Your task to perform on an android device: Open settings on Google Maps Image 0: 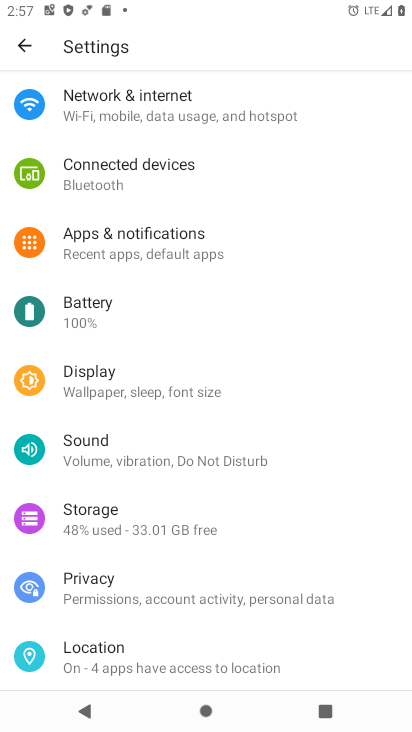
Step 0: press back button
Your task to perform on an android device: Open settings on Google Maps Image 1: 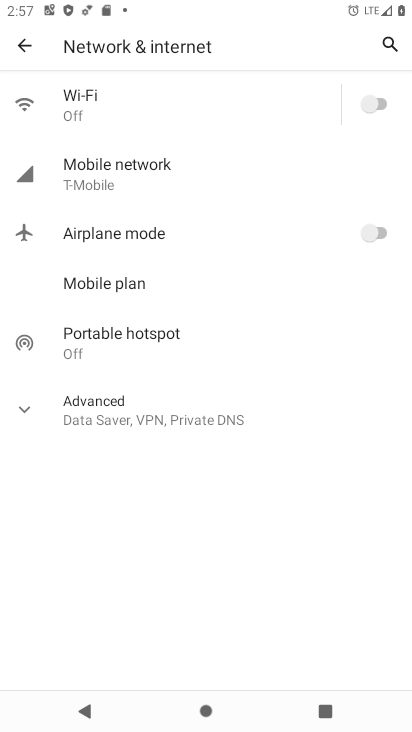
Step 1: press back button
Your task to perform on an android device: Open settings on Google Maps Image 2: 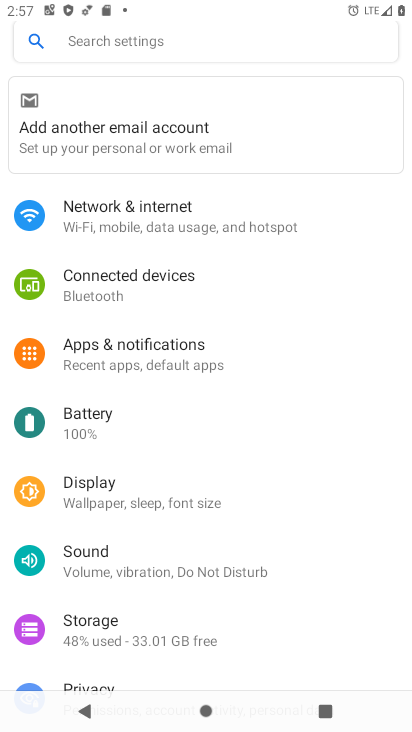
Step 2: press back button
Your task to perform on an android device: Open settings on Google Maps Image 3: 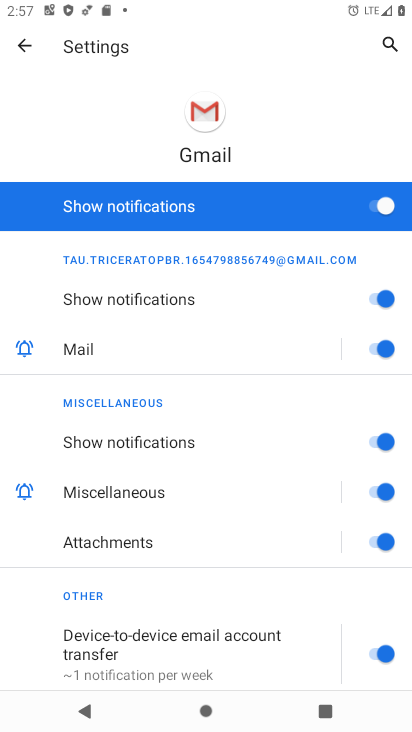
Step 3: press back button
Your task to perform on an android device: Open settings on Google Maps Image 4: 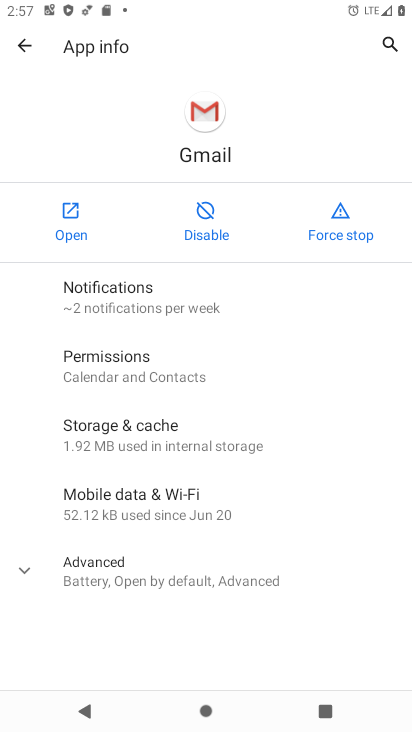
Step 4: press back button
Your task to perform on an android device: Open settings on Google Maps Image 5: 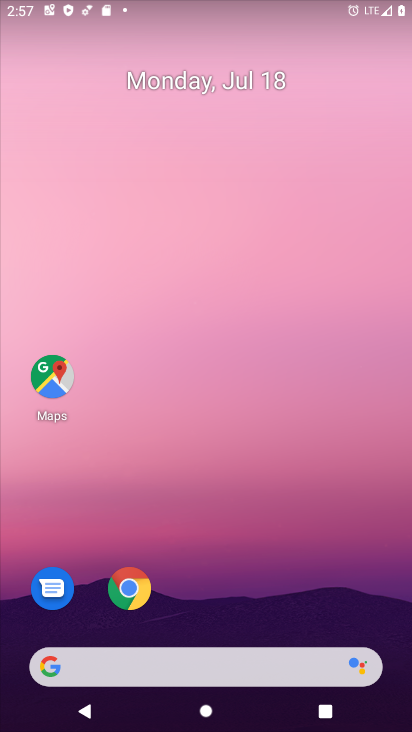
Step 5: click (45, 378)
Your task to perform on an android device: Open settings on Google Maps Image 6: 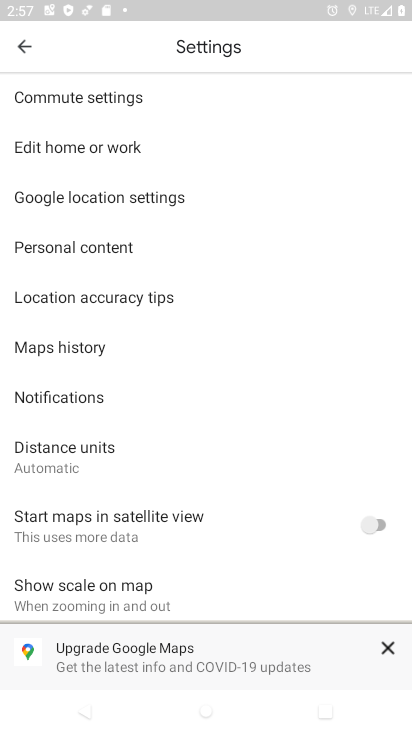
Step 6: task complete